Your task to perform on an android device: What's on my calendar today? Image 0: 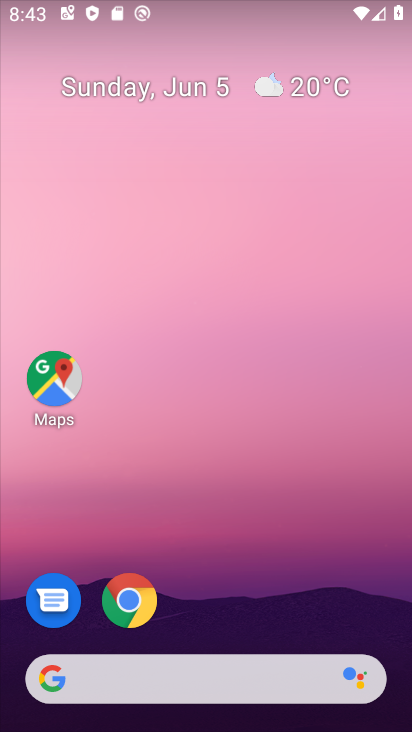
Step 0: drag from (221, 565) to (215, 11)
Your task to perform on an android device: What's on my calendar today? Image 1: 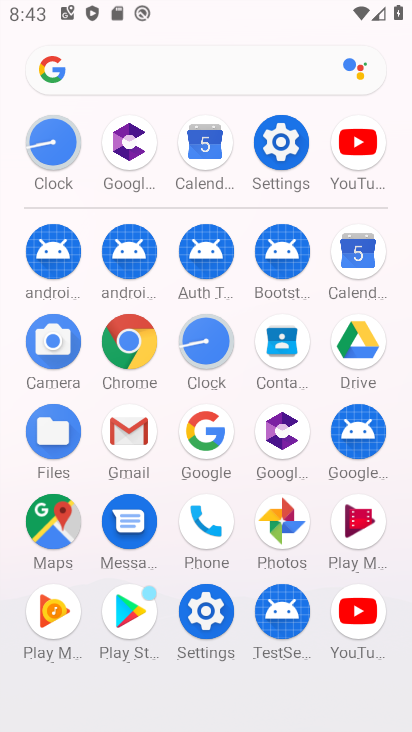
Step 1: click (208, 146)
Your task to perform on an android device: What's on my calendar today? Image 2: 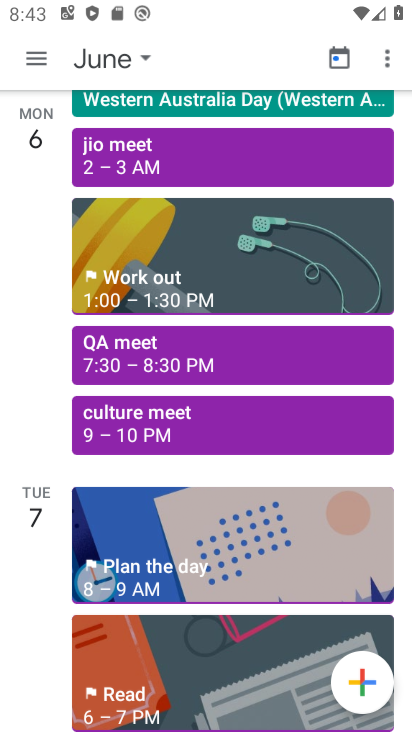
Step 2: task complete